Your task to perform on an android device: show emergency info Image 0: 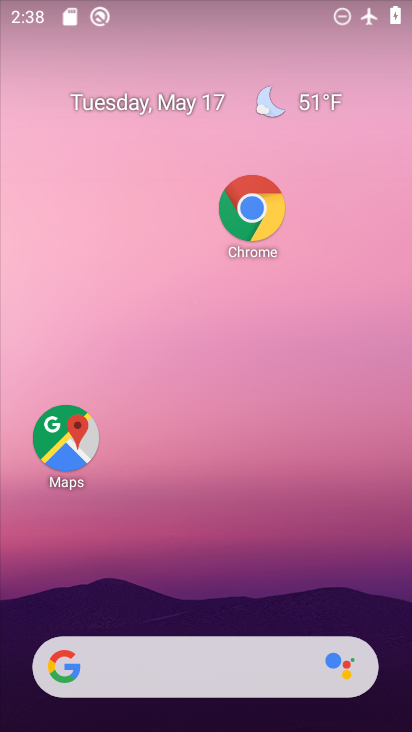
Step 0: click (238, 202)
Your task to perform on an android device: show emergency info Image 1: 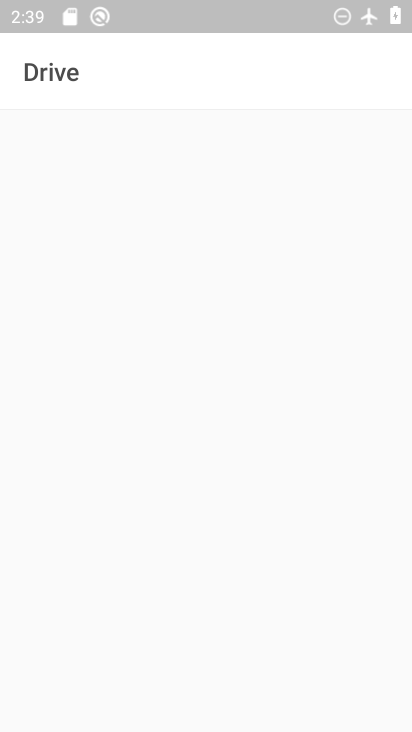
Step 1: press home button
Your task to perform on an android device: show emergency info Image 2: 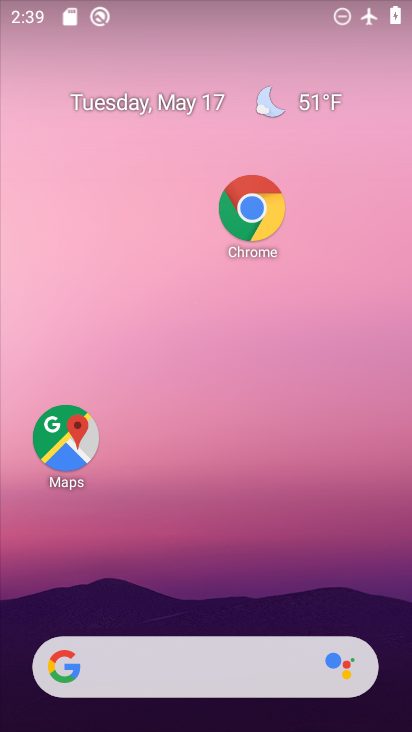
Step 2: drag from (171, 598) to (129, 87)
Your task to perform on an android device: show emergency info Image 3: 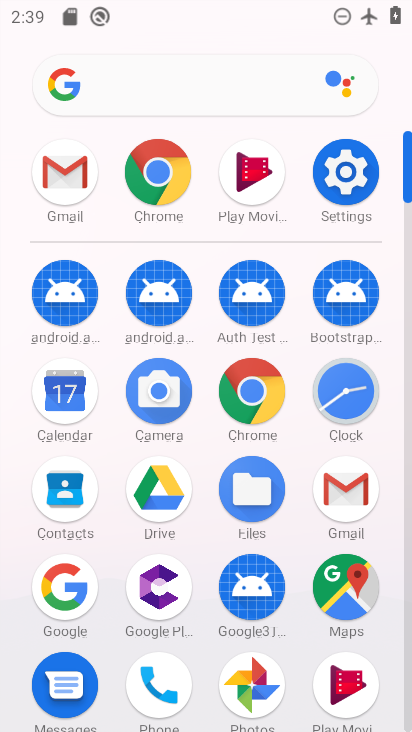
Step 3: click (349, 173)
Your task to perform on an android device: show emergency info Image 4: 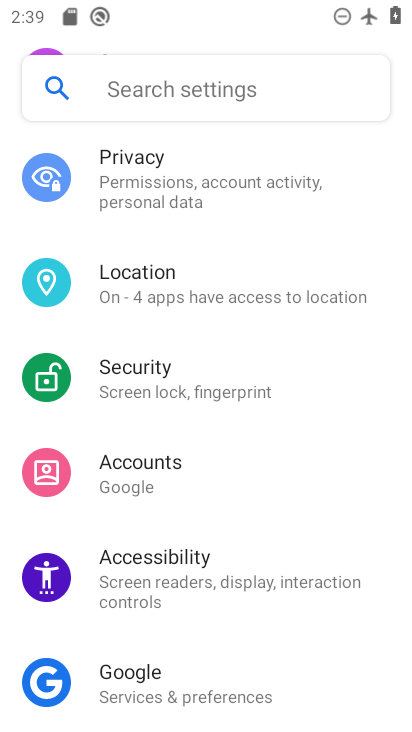
Step 4: drag from (255, 542) to (249, 82)
Your task to perform on an android device: show emergency info Image 5: 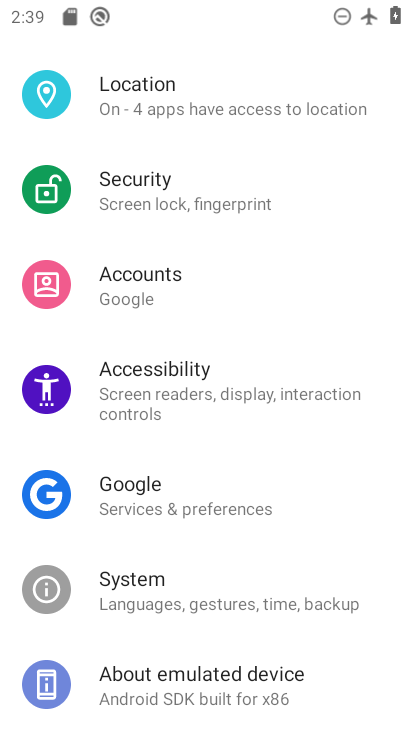
Step 5: click (224, 666)
Your task to perform on an android device: show emergency info Image 6: 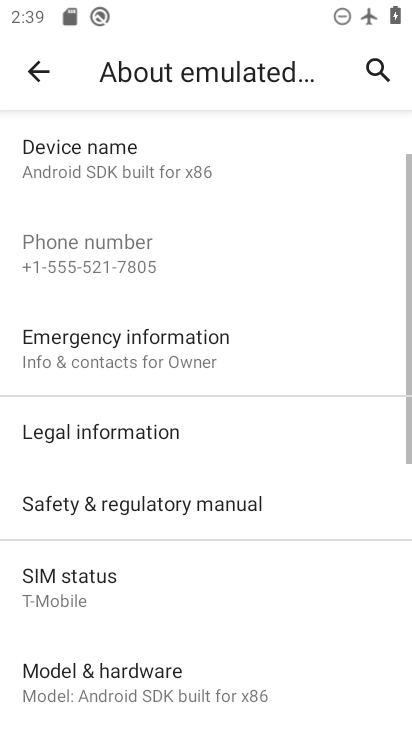
Step 6: click (87, 351)
Your task to perform on an android device: show emergency info Image 7: 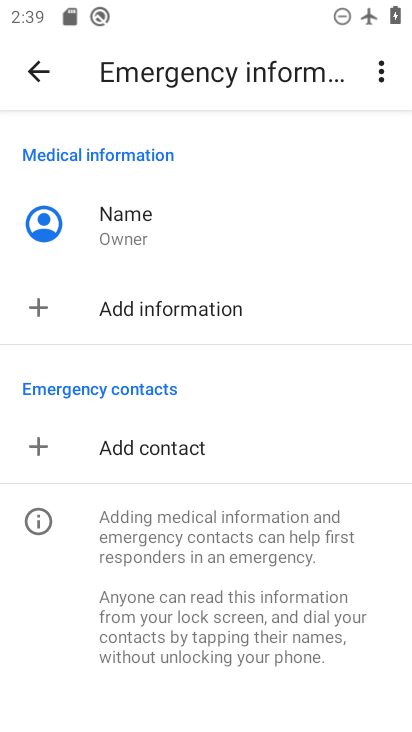
Step 7: task complete